Your task to perform on an android device: turn off javascript in the chrome app Image 0: 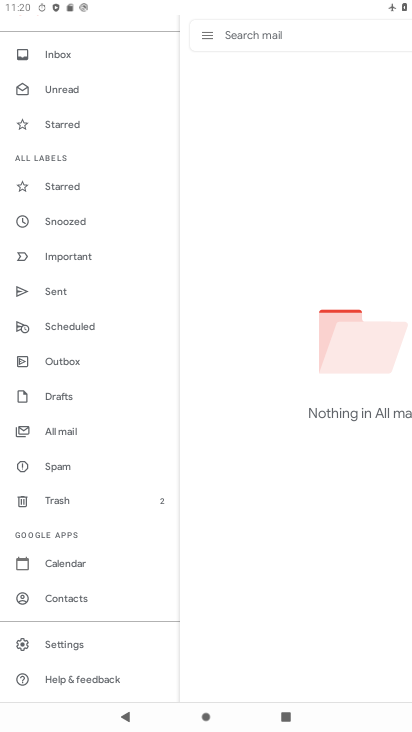
Step 0: press home button
Your task to perform on an android device: turn off javascript in the chrome app Image 1: 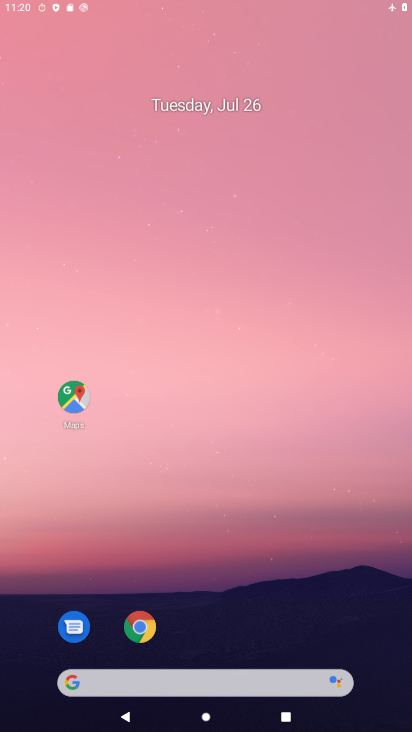
Step 1: drag from (375, 548) to (222, 0)
Your task to perform on an android device: turn off javascript in the chrome app Image 2: 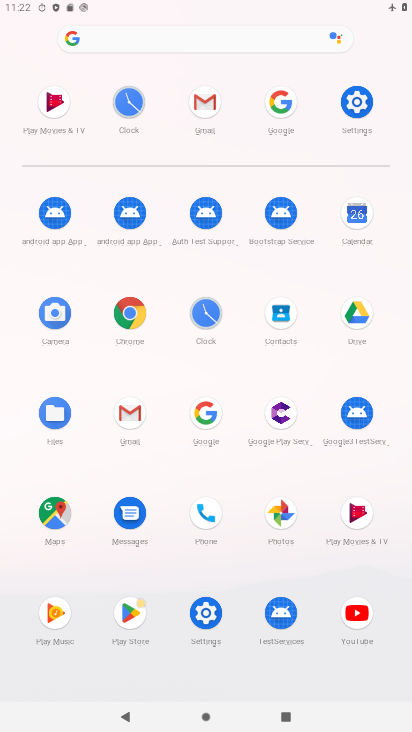
Step 2: click (142, 322)
Your task to perform on an android device: turn off javascript in the chrome app Image 3: 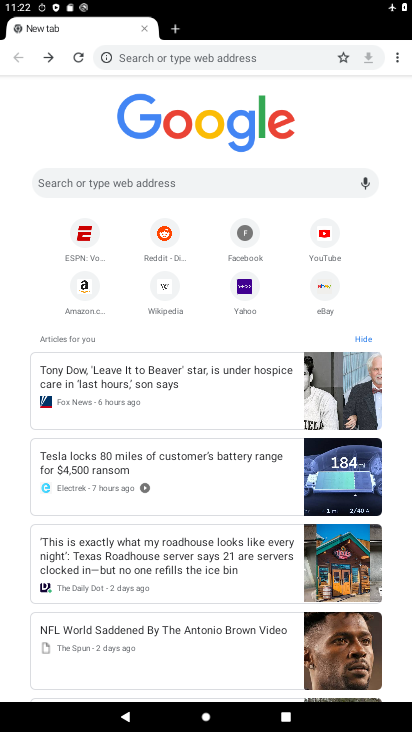
Step 3: click (397, 53)
Your task to perform on an android device: turn off javascript in the chrome app Image 4: 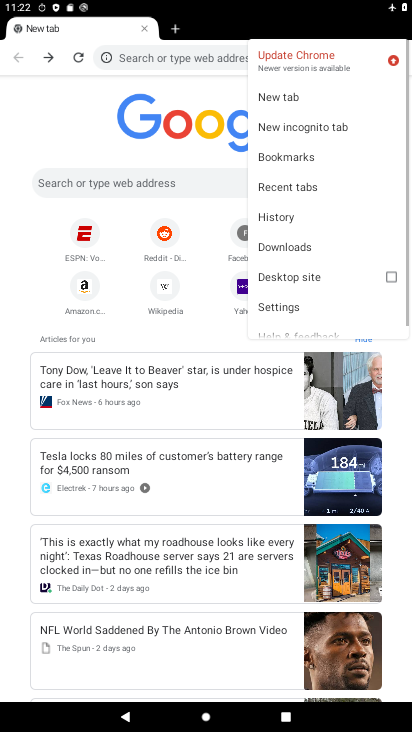
Step 4: click (292, 306)
Your task to perform on an android device: turn off javascript in the chrome app Image 5: 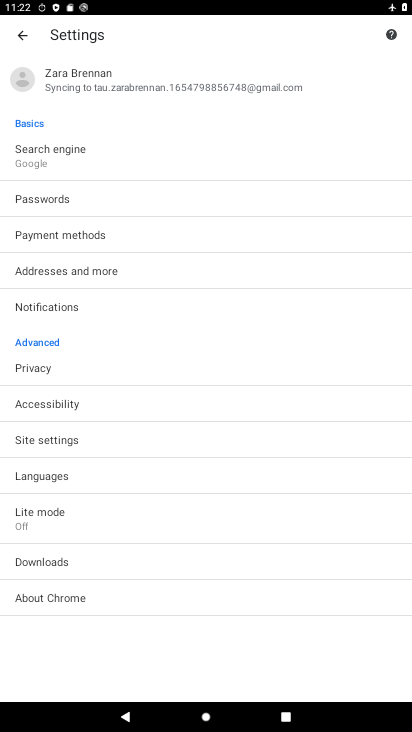
Step 5: click (72, 429)
Your task to perform on an android device: turn off javascript in the chrome app Image 6: 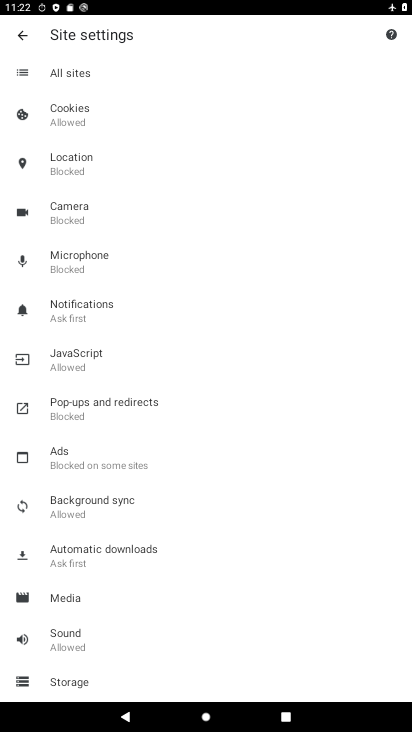
Step 6: click (84, 367)
Your task to perform on an android device: turn off javascript in the chrome app Image 7: 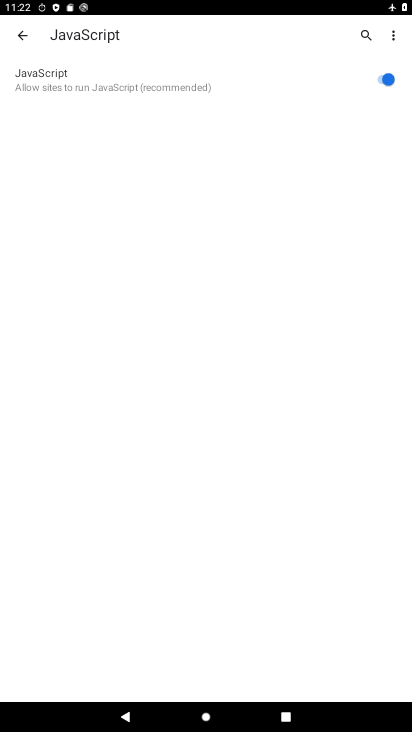
Step 7: click (372, 84)
Your task to perform on an android device: turn off javascript in the chrome app Image 8: 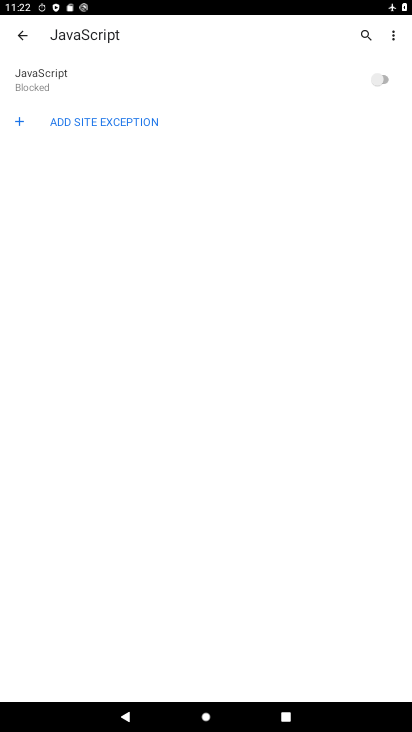
Step 8: task complete